Your task to perform on an android device: Toggle the flashlight Image 0: 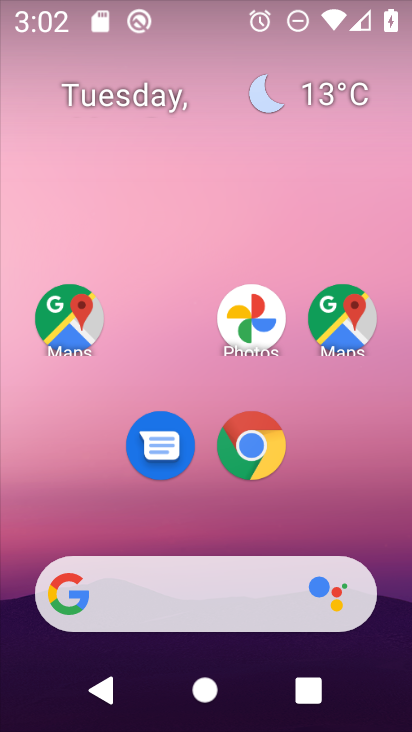
Step 0: drag from (212, 4) to (183, 433)
Your task to perform on an android device: Toggle the flashlight Image 1: 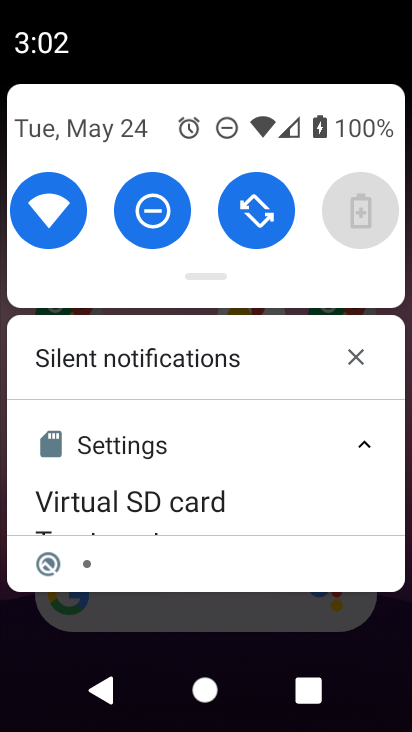
Step 1: drag from (205, 158) to (198, 421)
Your task to perform on an android device: Toggle the flashlight Image 2: 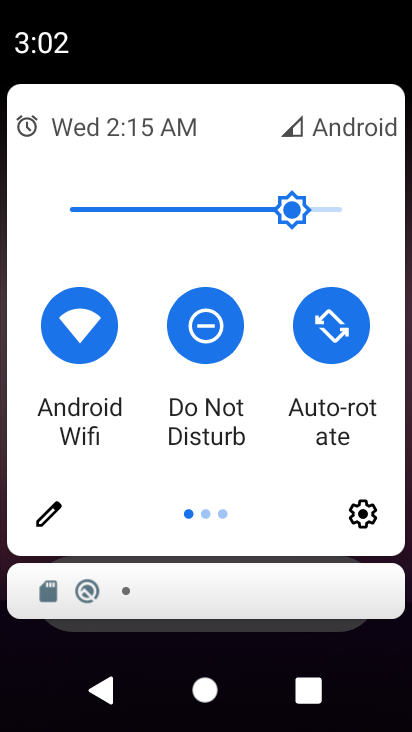
Step 2: click (55, 507)
Your task to perform on an android device: Toggle the flashlight Image 3: 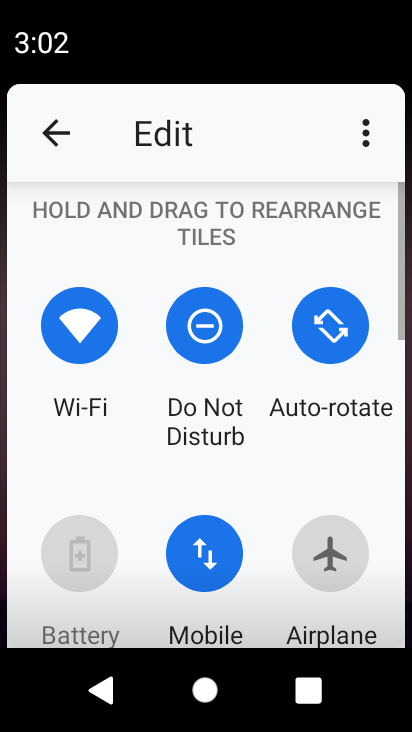
Step 3: task complete